Your task to perform on an android device: Open sound settings Image 0: 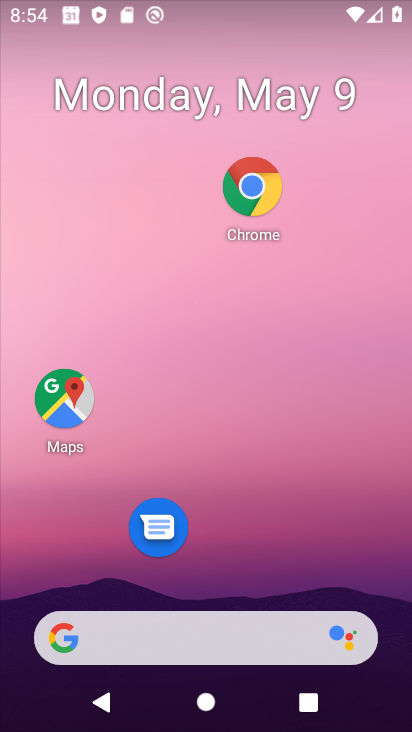
Step 0: drag from (215, 589) to (217, 285)
Your task to perform on an android device: Open sound settings Image 1: 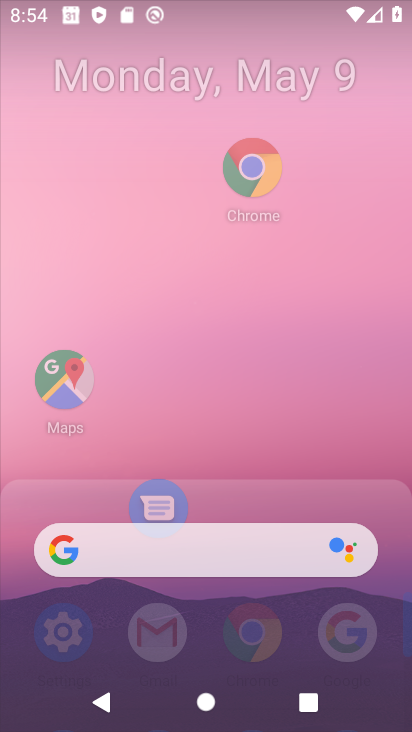
Step 1: click (223, 77)
Your task to perform on an android device: Open sound settings Image 2: 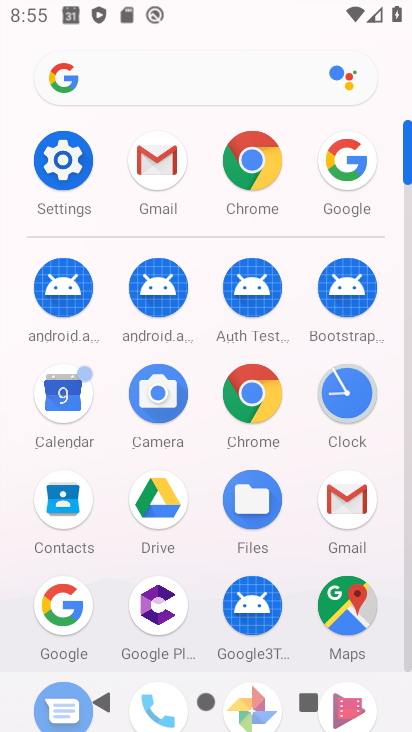
Step 2: click (59, 154)
Your task to perform on an android device: Open sound settings Image 3: 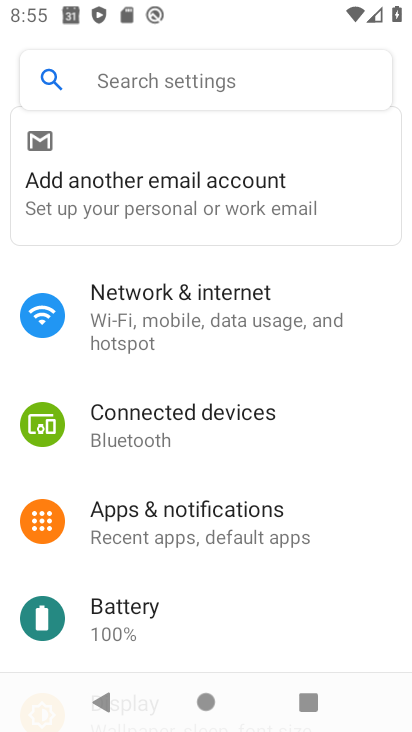
Step 3: drag from (197, 627) to (227, 170)
Your task to perform on an android device: Open sound settings Image 4: 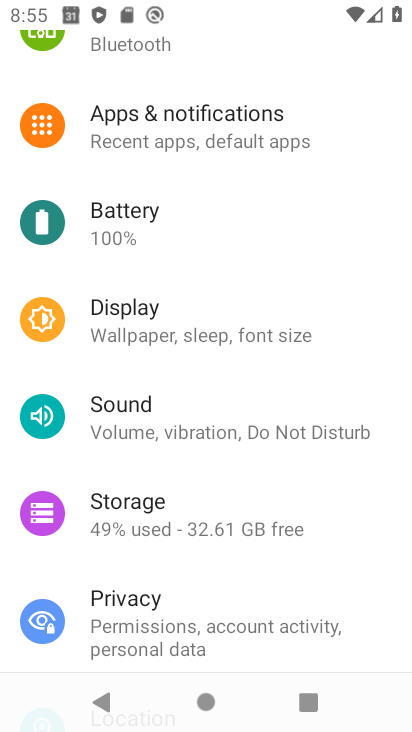
Step 4: click (165, 399)
Your task to perform on an android device: Open sound settings Image 5: 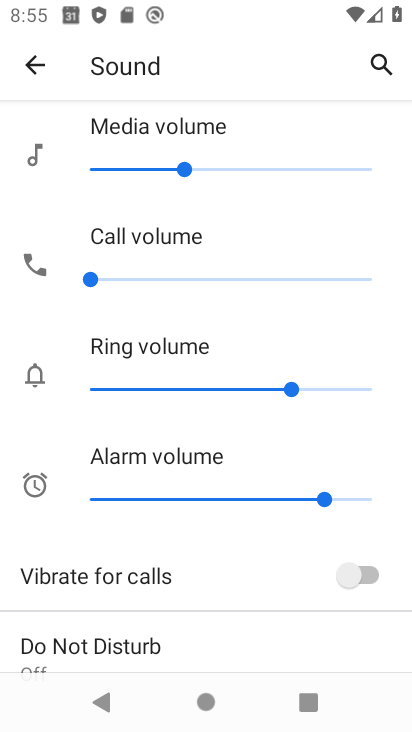
Step 5: drag from (210, 623) to (210, 463)
Your task to perform on an android device: Open sound settings Image 6: 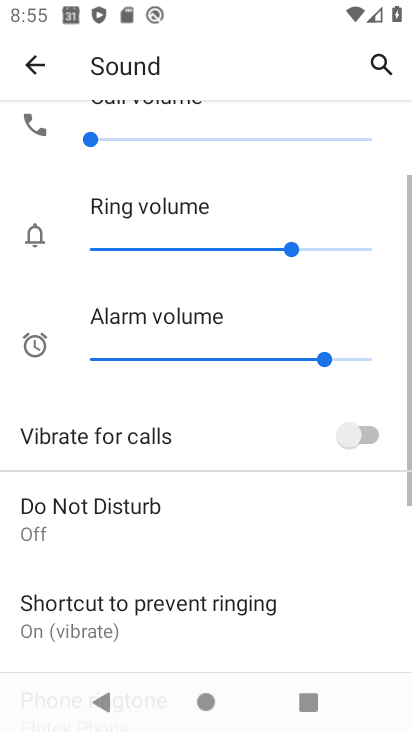
Step 6: drag from (227, 322) to (245, 169)
Your task to perform on an android device: Open sound settings Image 7: 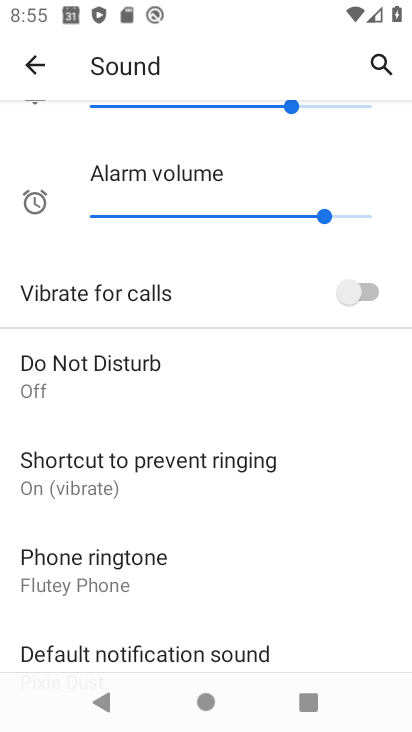
Step 7: drag from (227, 602) to (268, 159)
Your task to perform on an android device: Open sound settings Image 8: 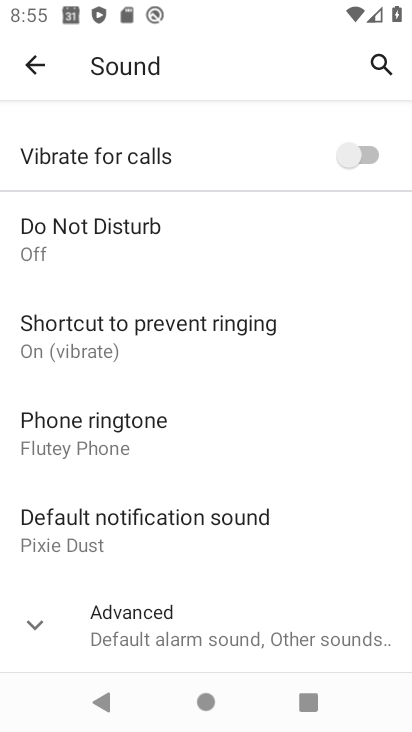
Step 8: click (41, 618)
Your task to perform on an android device: Open sound settings Image 9: 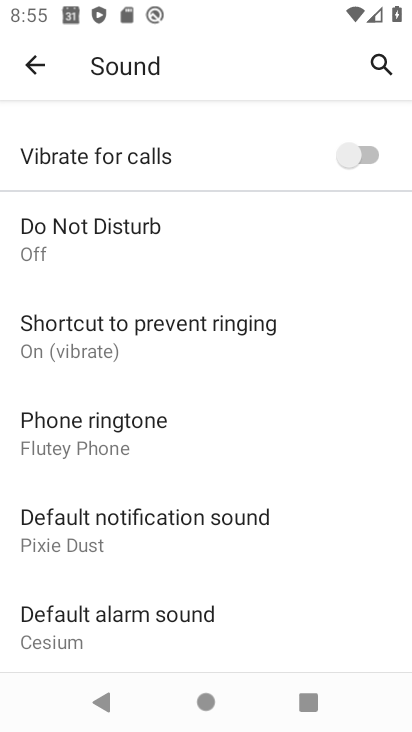
Step 9: task complete